Your task to perform on an android device: delete location history Image 0: 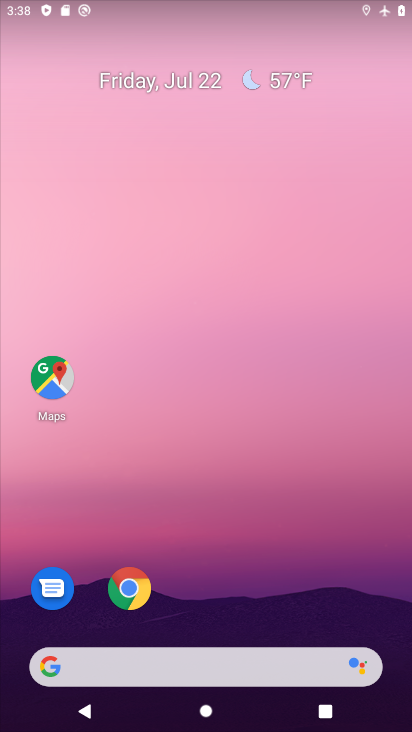
Step 0: drag from (202, 621) to (193, 53)
Your task to perform on an android device: delete location history Image 1: 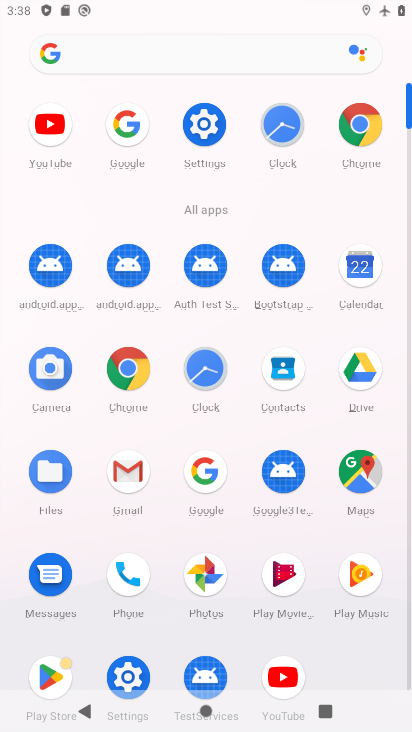
Step 1: click (357, 482)
Your task to perform on an android device: delete location history Image 2: 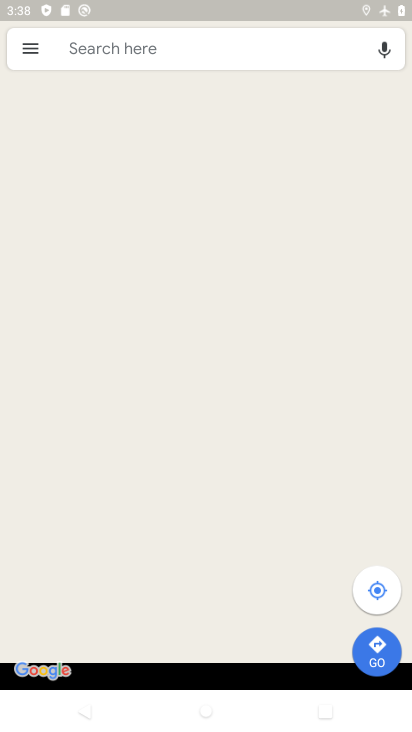
Step 2: click (25, 37)
Your task to perform on an android device: delete location history Image 3: 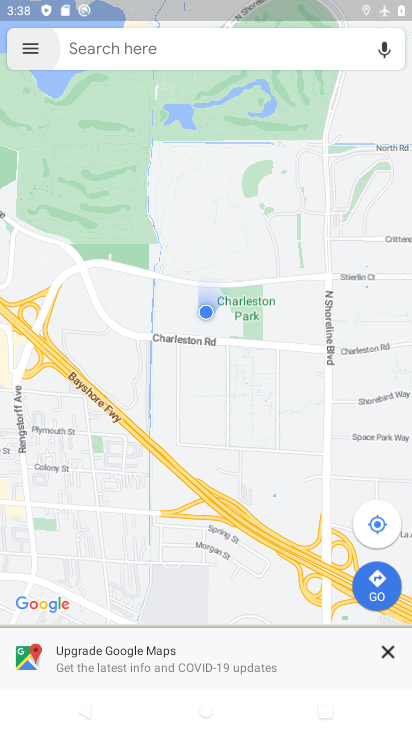
Step 3: click (31, 43)
Your task to perform on an android device: delete location history Image 4: 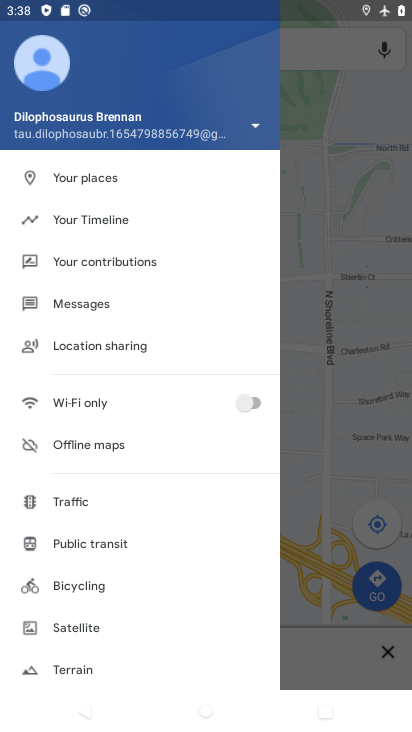
Step 4: click (99, 215)
Your task to perform on an android device: delete location history Image 5: 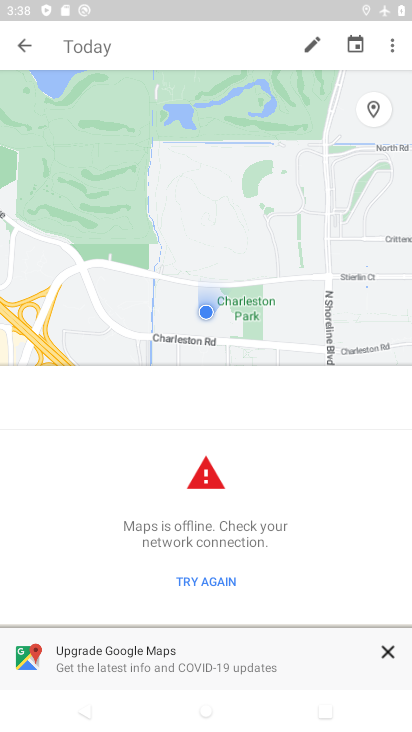
Step 5: click (395, 40)
Your task to perform on an android device: delete location history Image 6: 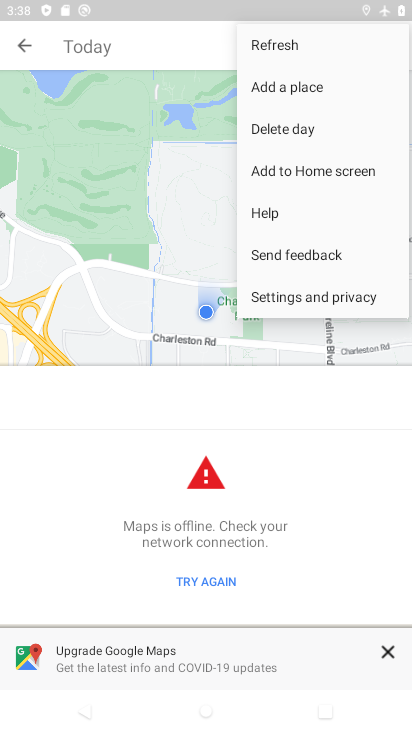
Step 6: click (310, 294)
Your task to perform on an android device: delete location history Image 7: 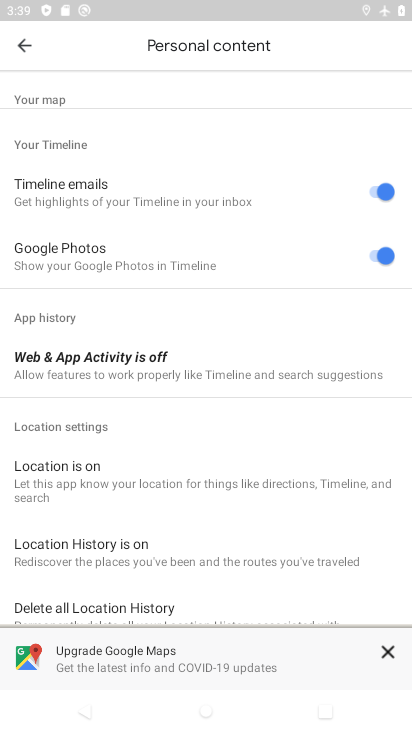
Step 7: drag from (168, 574) to (149, 397)
Your task to perform on an android device: delete location history Image 8: 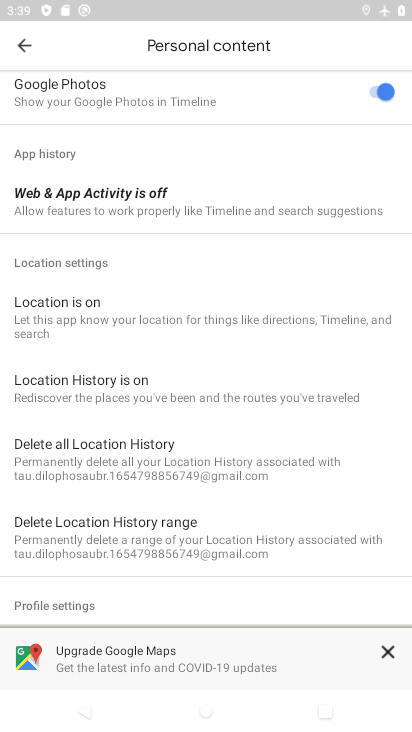
Step 8: click (144, 472)
Your task to perform on an android device: delete location history Image 9: 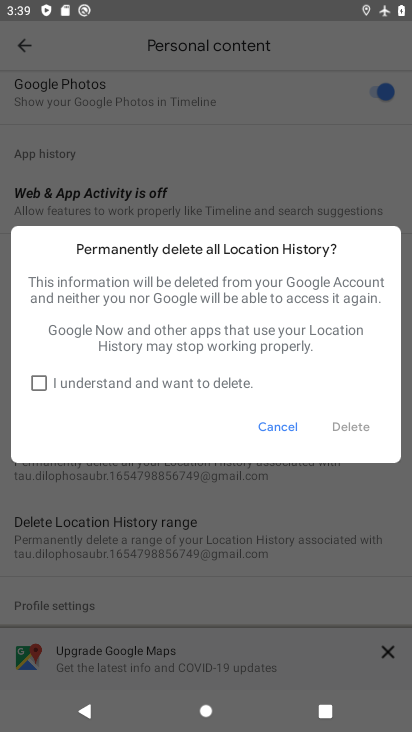
Step 9: click (39, 381)
Your task to perform on an android device: delete location history Image 10: 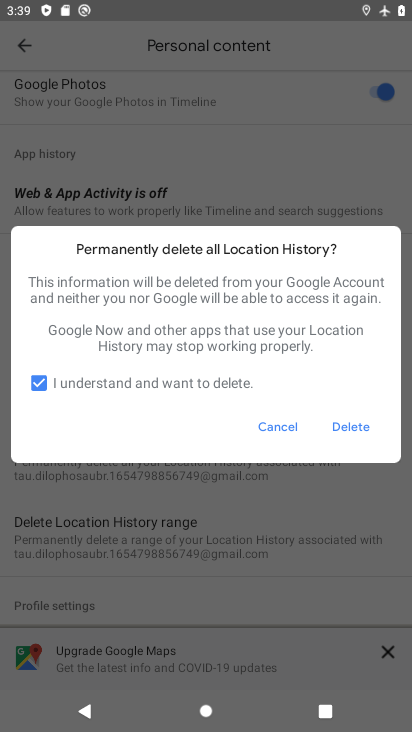
Step 10: click (341, 435)
Your task to perform on an android device: delete location history Image 11: 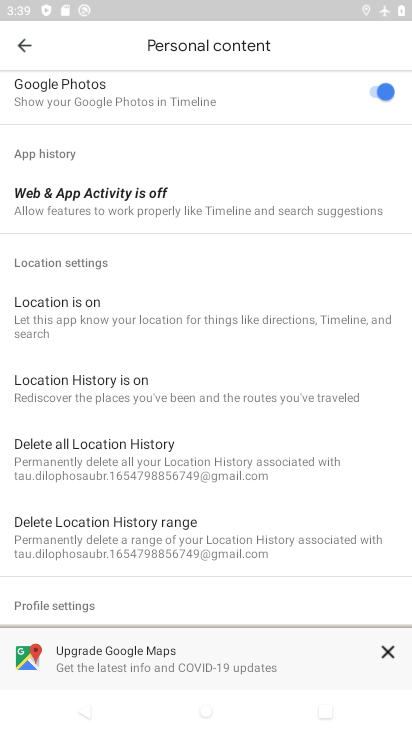
Step 11: task complete